Your task to perform on an android device: Go to Maps Image 0: 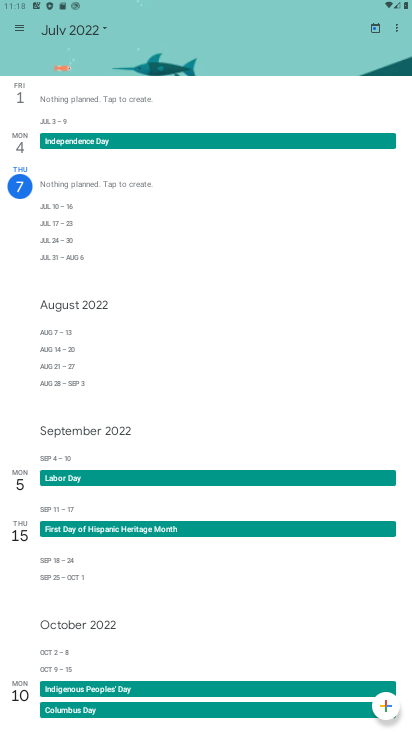
Step 0: press home button
Your task to perform on an android device: Go to Maps Image 1: 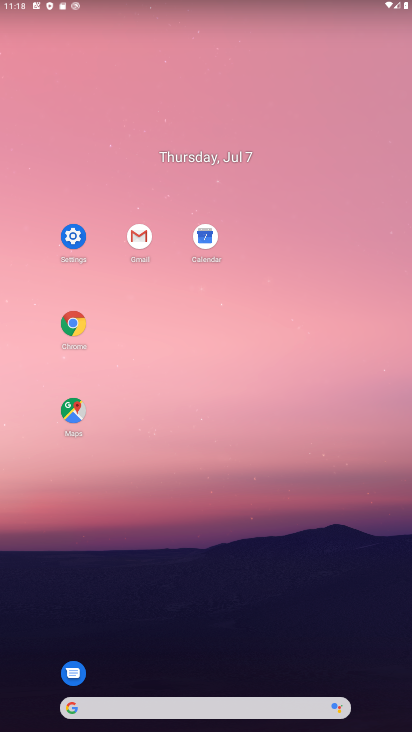
Step 1: click (77, 417)
Your task to perform on an android device: Go to Maps Image 2: 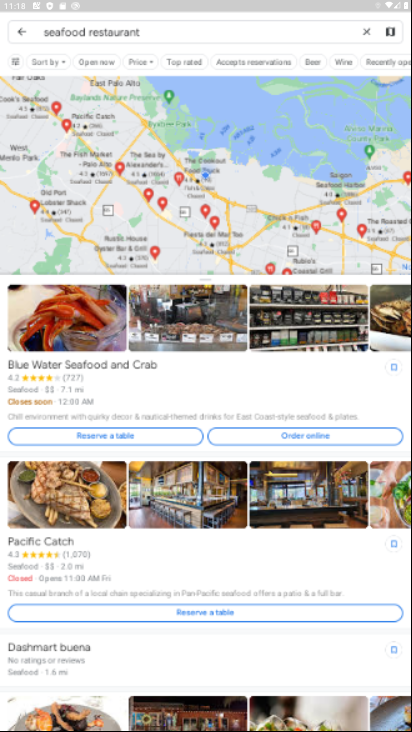
Step 2: task complete